Your task to perform on an android device: open app "Paramount+ | Peak Streaming" (install if not already installed) and enter user name: "fostered@yahoo.com" and password: "strong" Image 0: 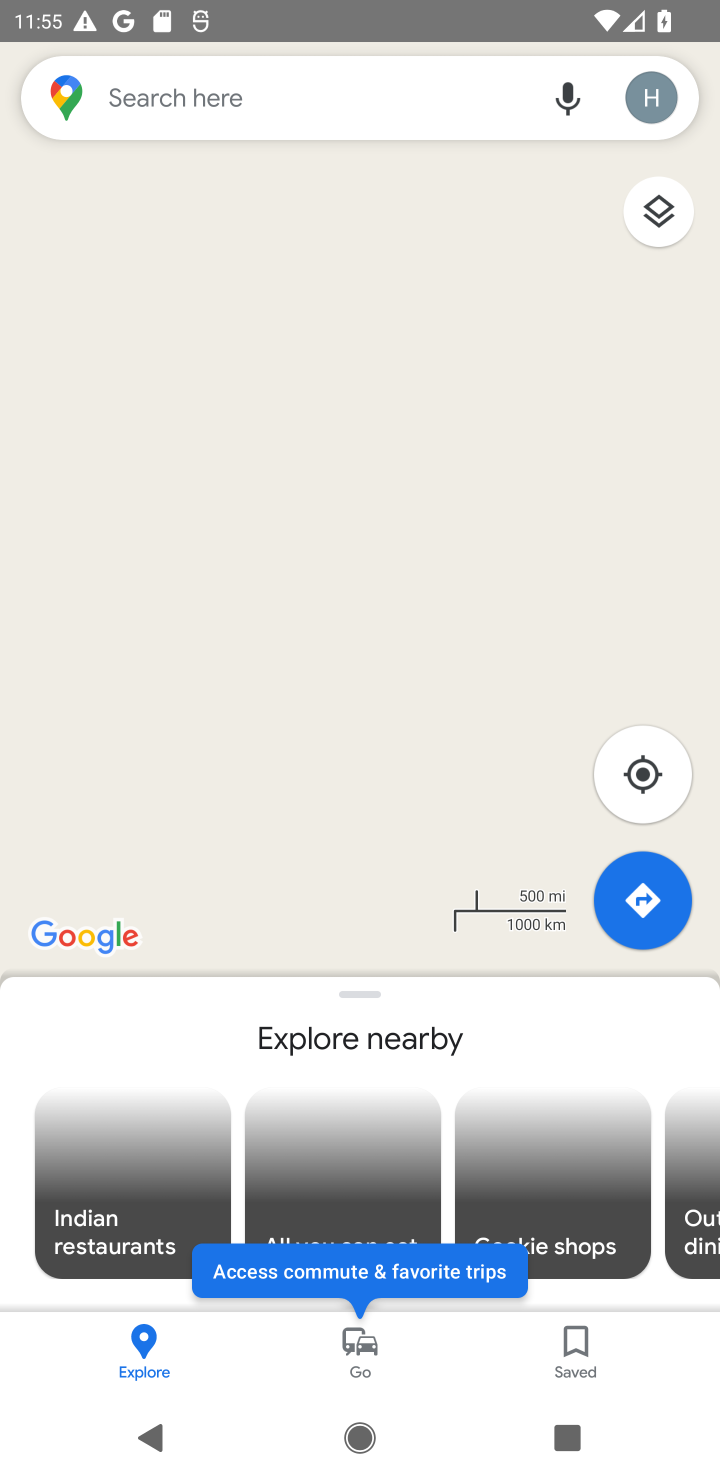
Step 0: press home button
Your task to perform on an android device: open app "Paramount+ | Peak Streaming" (install if not already installed) and enter user name: "fostered@yahoo.com" and password: "strong" Image 1: 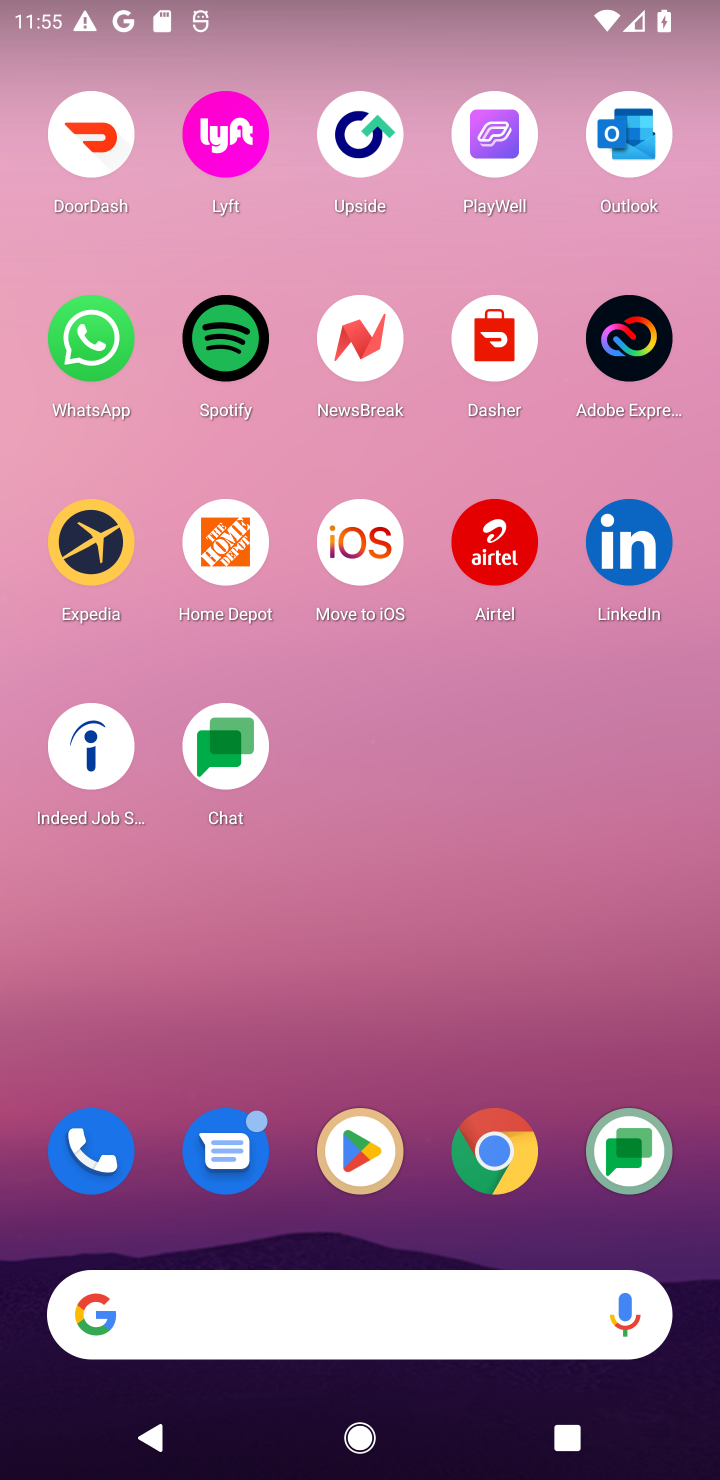
Step 1: click (338, 1144)
Your task to perform on an android device: open app "Paramount+ | Peak Streaming" (install if not already installed) and enter user name: "fostered@yahoo.com" and password: "strong" Image 2: 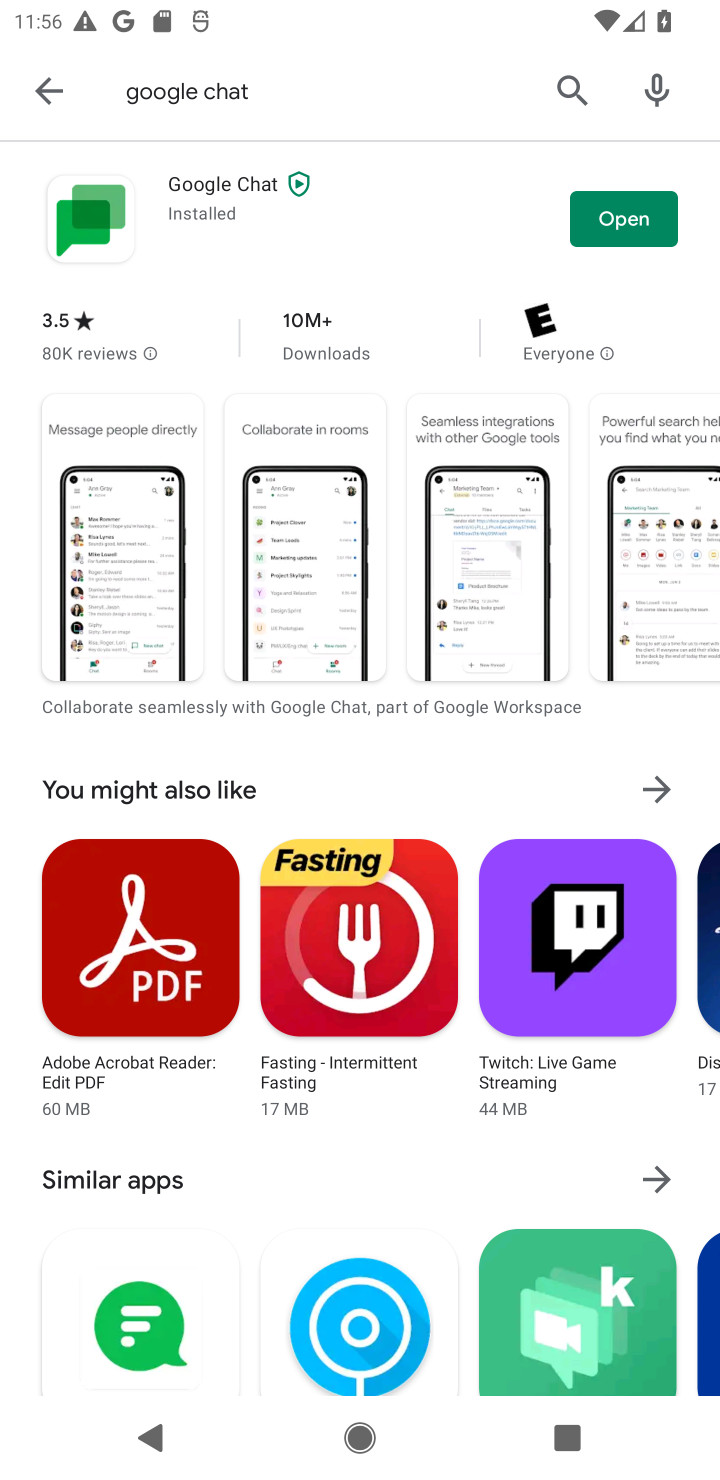
Step 2: click (560, 73)
Your task to perform on an android device: open app "Paramount+ | Peak Streaming" (install if not already installed) and enter user name: "fostered@yahoo.com" and password: "strong" Image 3: 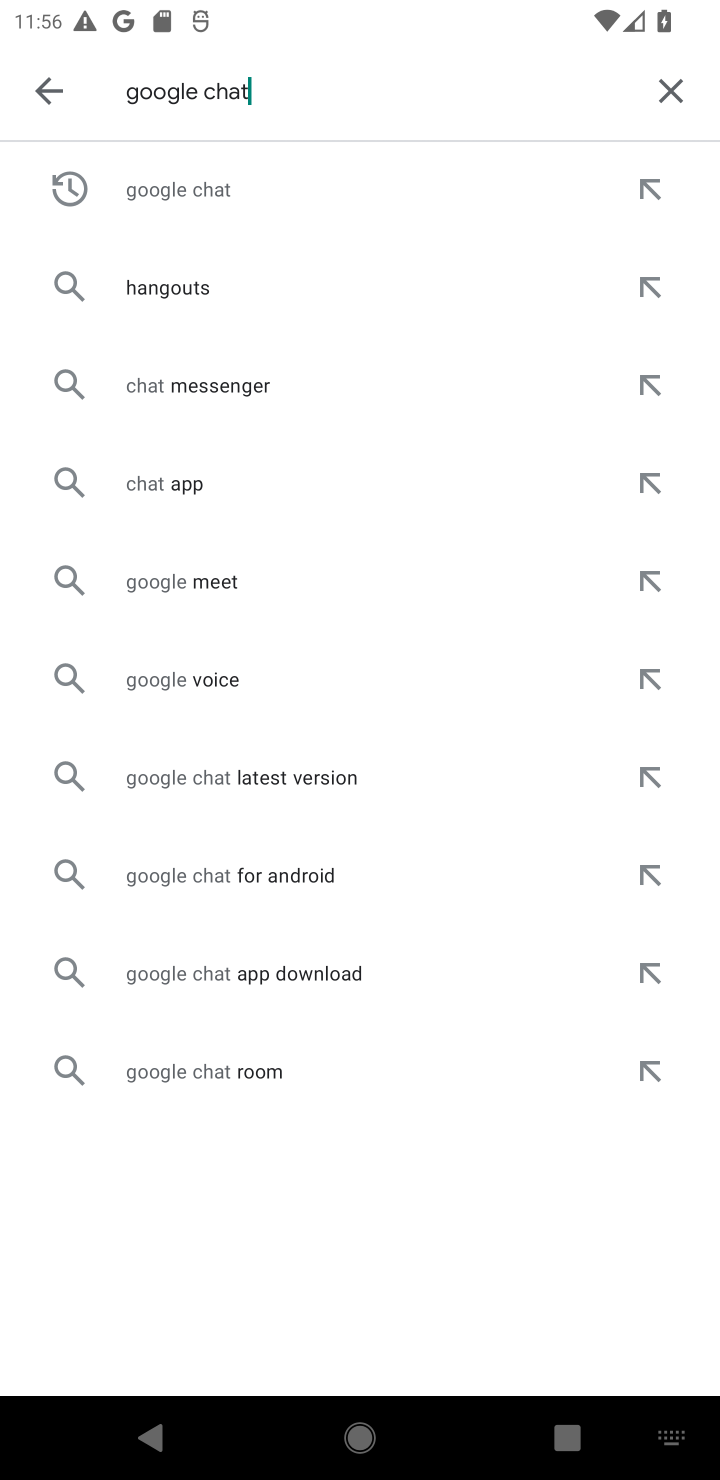
Step 3: click (651, 90)
Your task to perform on an android device: open app "Paramount+ | Peak Streaming" (install if not already installed) and enter user name: "fostered@yahoo.com" and password: "strong" Image 4: 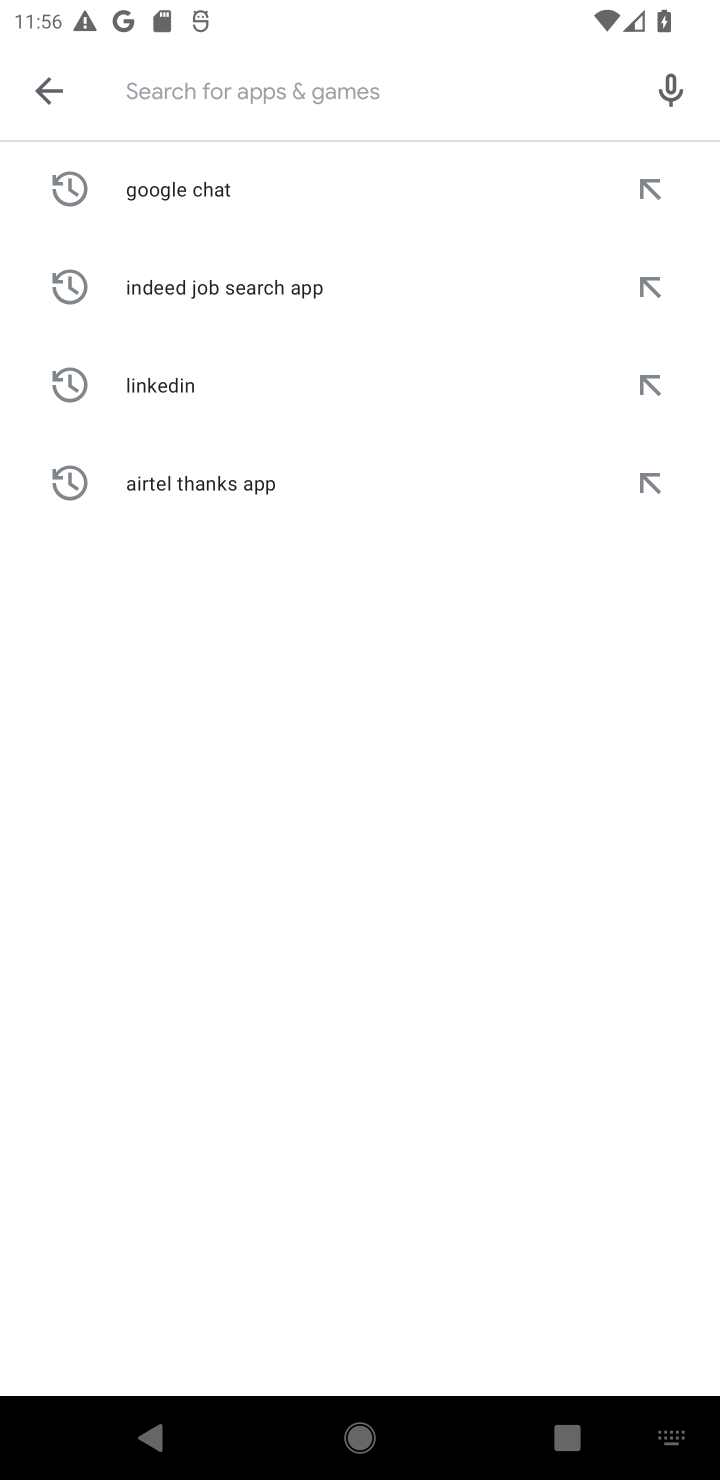
Step 4: type "Paramount+ | Peak Streaming"
Your task to perform on an android device: open app "Paramount+ | Peak Streaming" (install if not already installed) and enter user name: "fostered@yahoo.com" and password: "strong" Image 5: 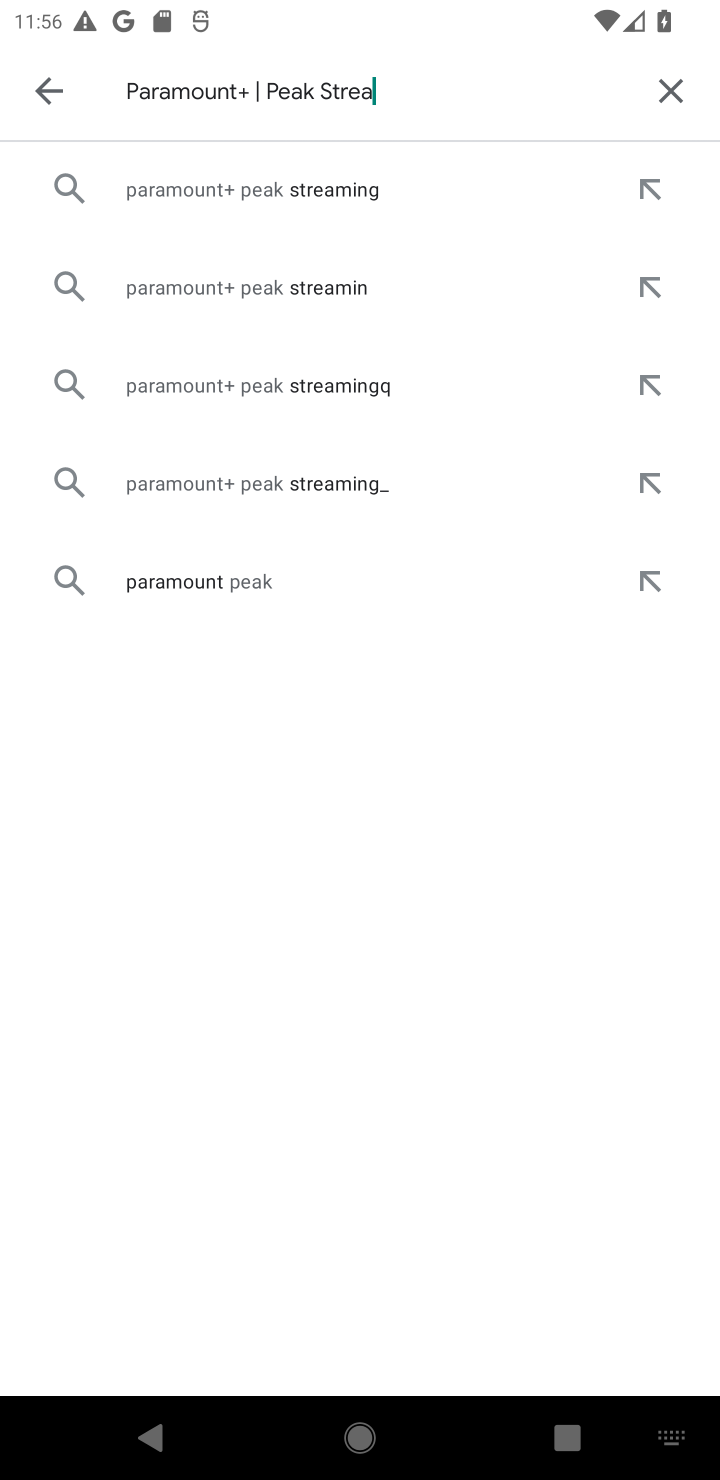
Step 5: type ""
Your task to perform on an android device: open app "Paramount+ | Peak Streaming" (install if not already installed) and enter user name: "fostered@yahoo.com" and password: "strong" Image 6: 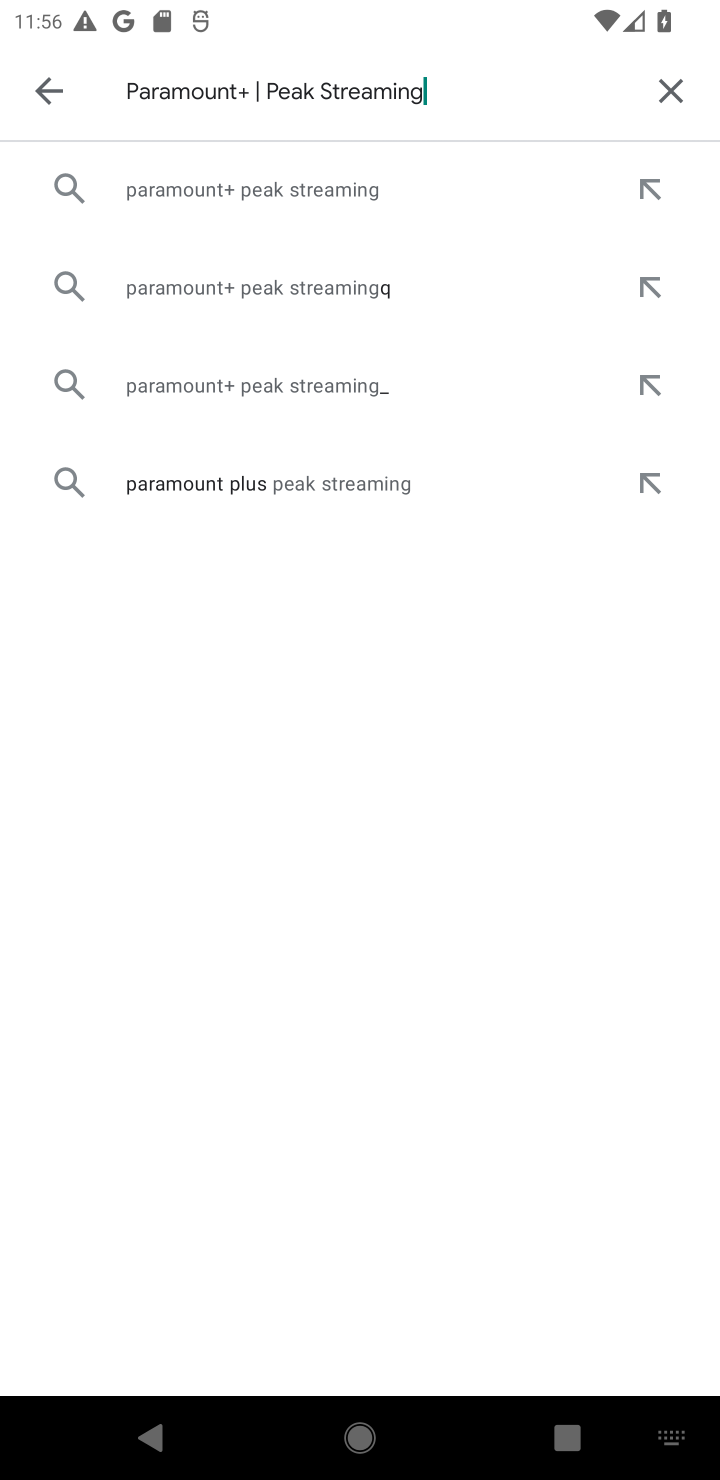
Step 6: click (244, 193)
Your task to perform on an android device: open app "Paramount+ | Peak Streaming" (install if not already installed) and enter user name: "fostered@yahoo.com" and password: "strong" Image 7: 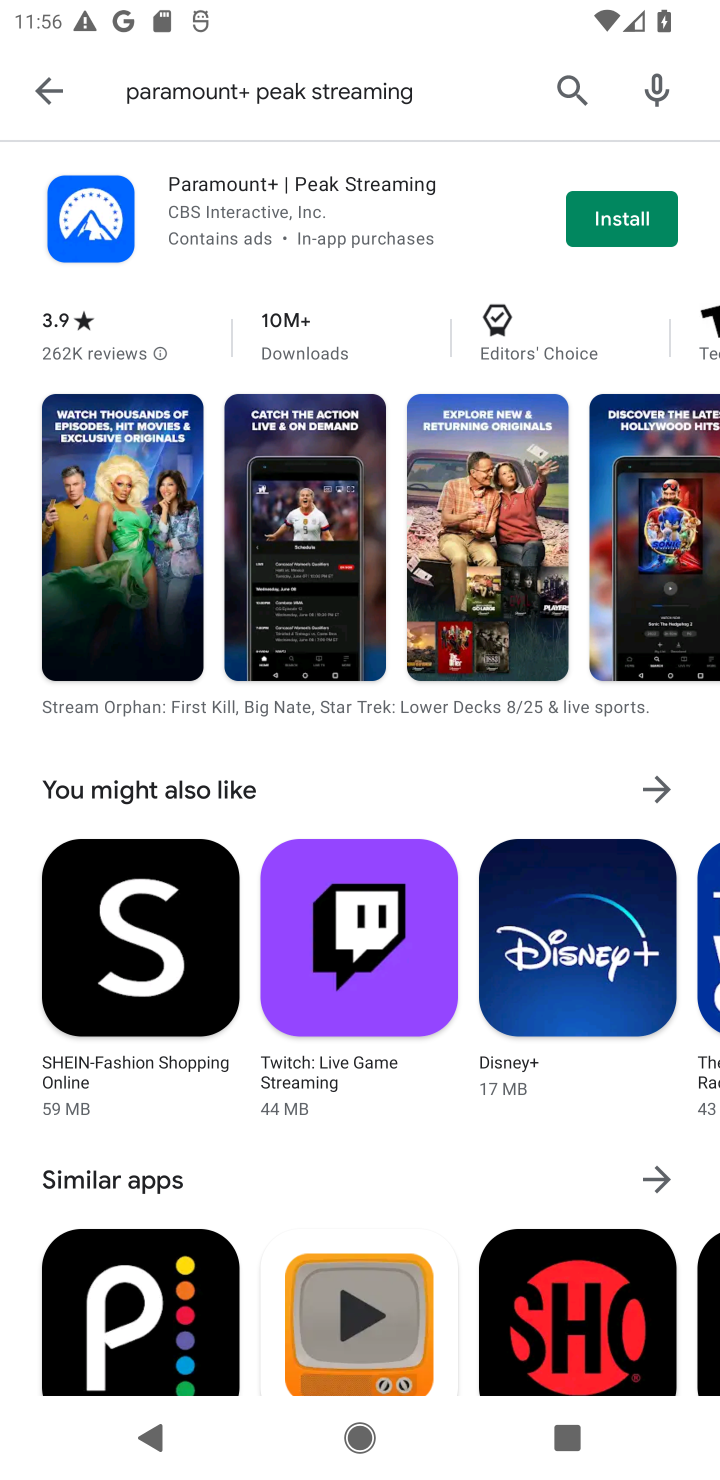
Step 7: click (571, 191)
Your task to perform on an android device: open app "Paramount+ | Peak Streaming" (install if not already installed) and enter user name: "fostered@yahoo.com" and password: "strong" Image 8: 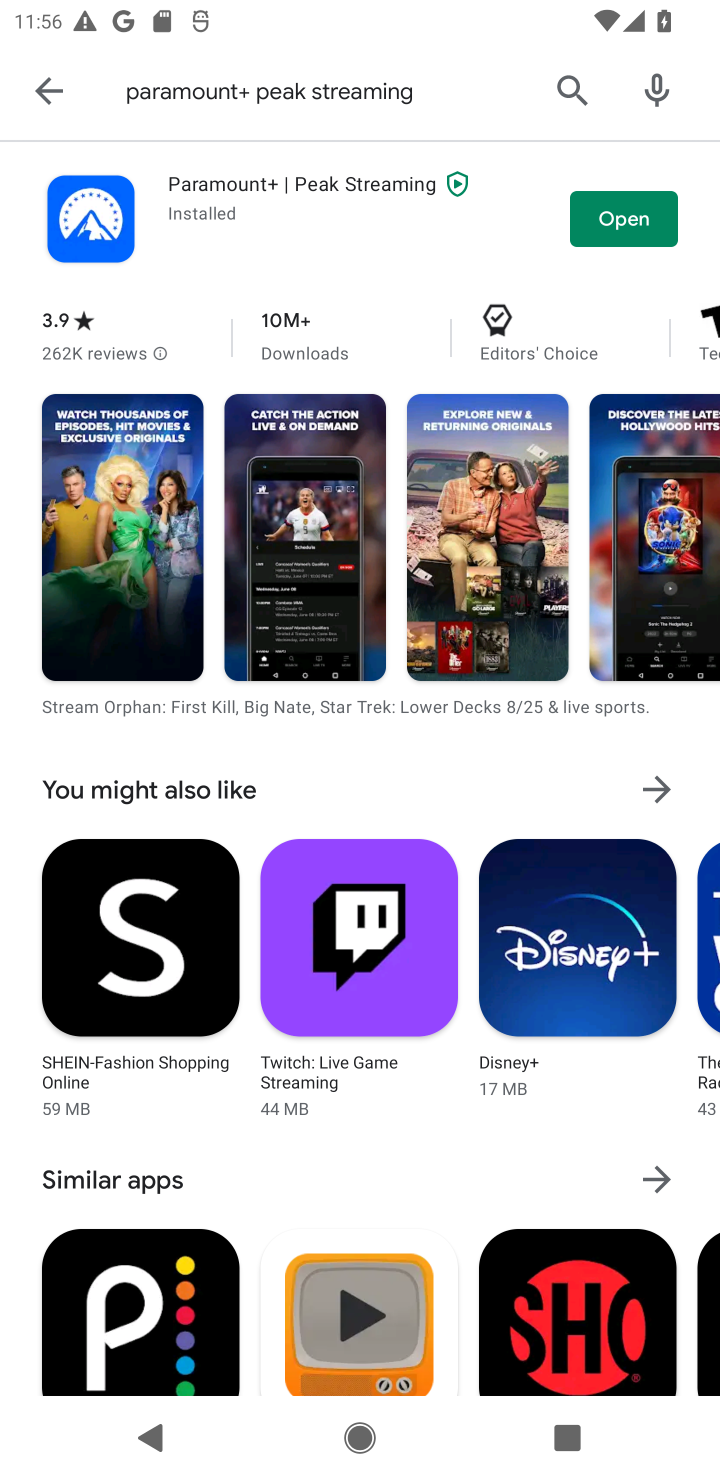
Step 8: click (619, 223)
Your task to perform on an android device: open app "Paramount+ | Peak Streaming" (install if not already installed) and enter user name: "fostered@yahoo.com" and password: "strong" Image 9: 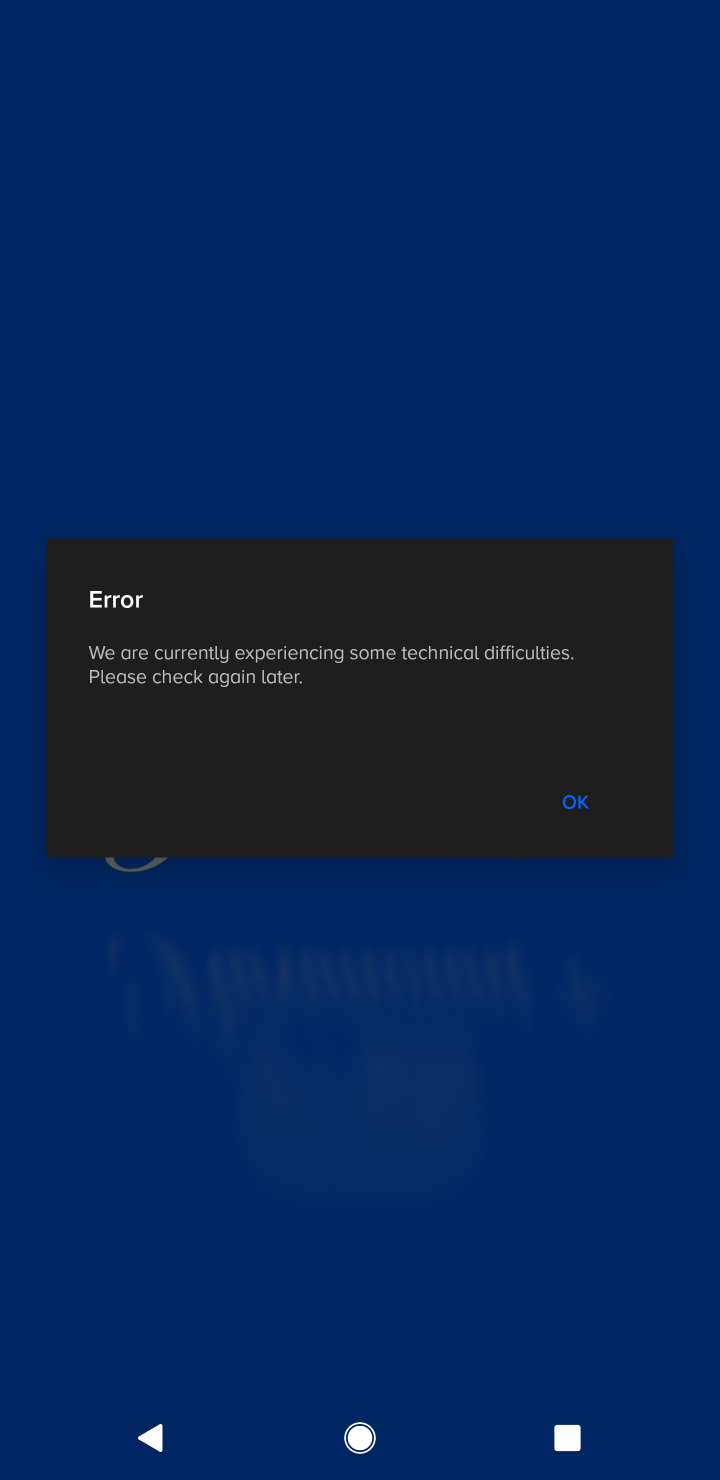
Step 9: press home button
Your task to perform on an android device: open app "Paramount+ | Peak Streaming" (install if not already installed) and enter user name: "fostered@yahoo.com" and password: "strong" Image 10: 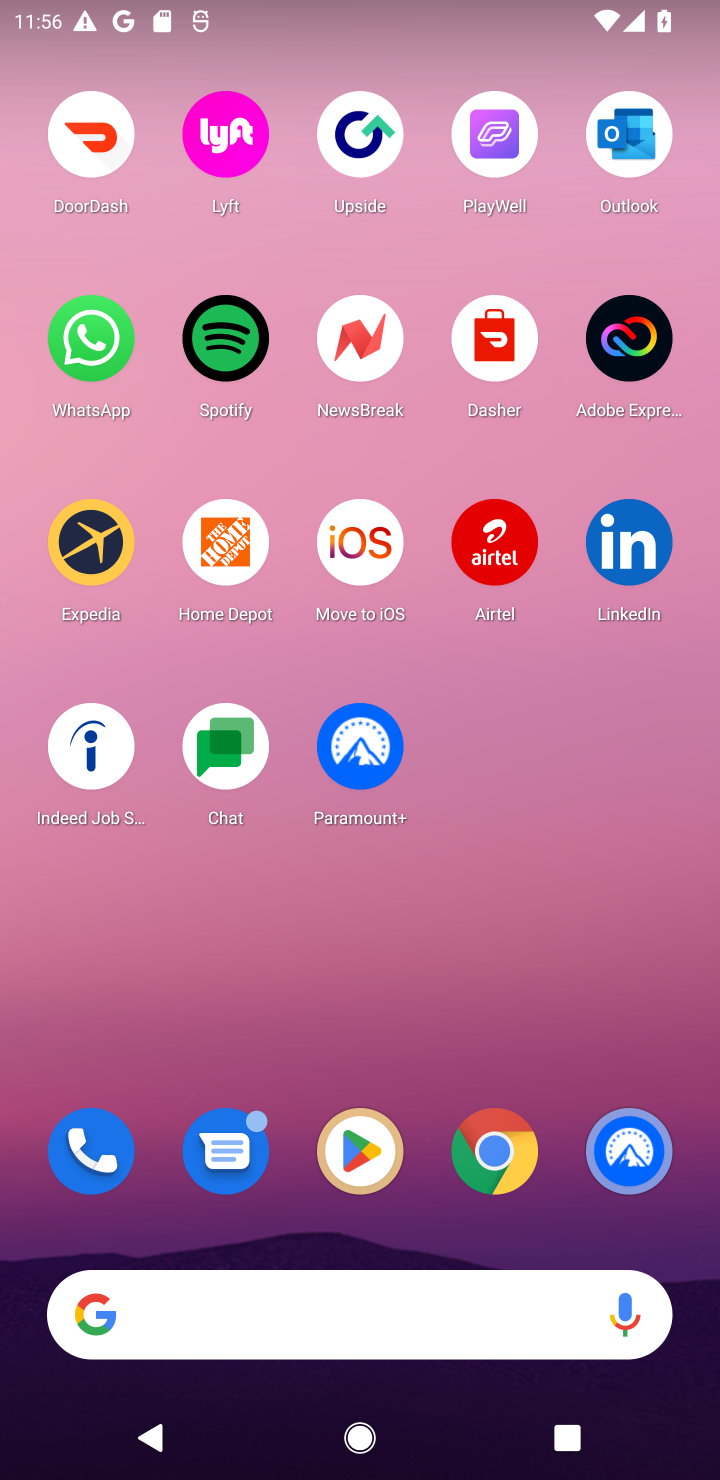
Step 10: click (368, 1163)
Your task to perform on an android device: open app "Paramount+ | Peak Streaming" (install if not already installed) and enter user name: "fostered@yahoo.com" and password: "strong" Image 11: 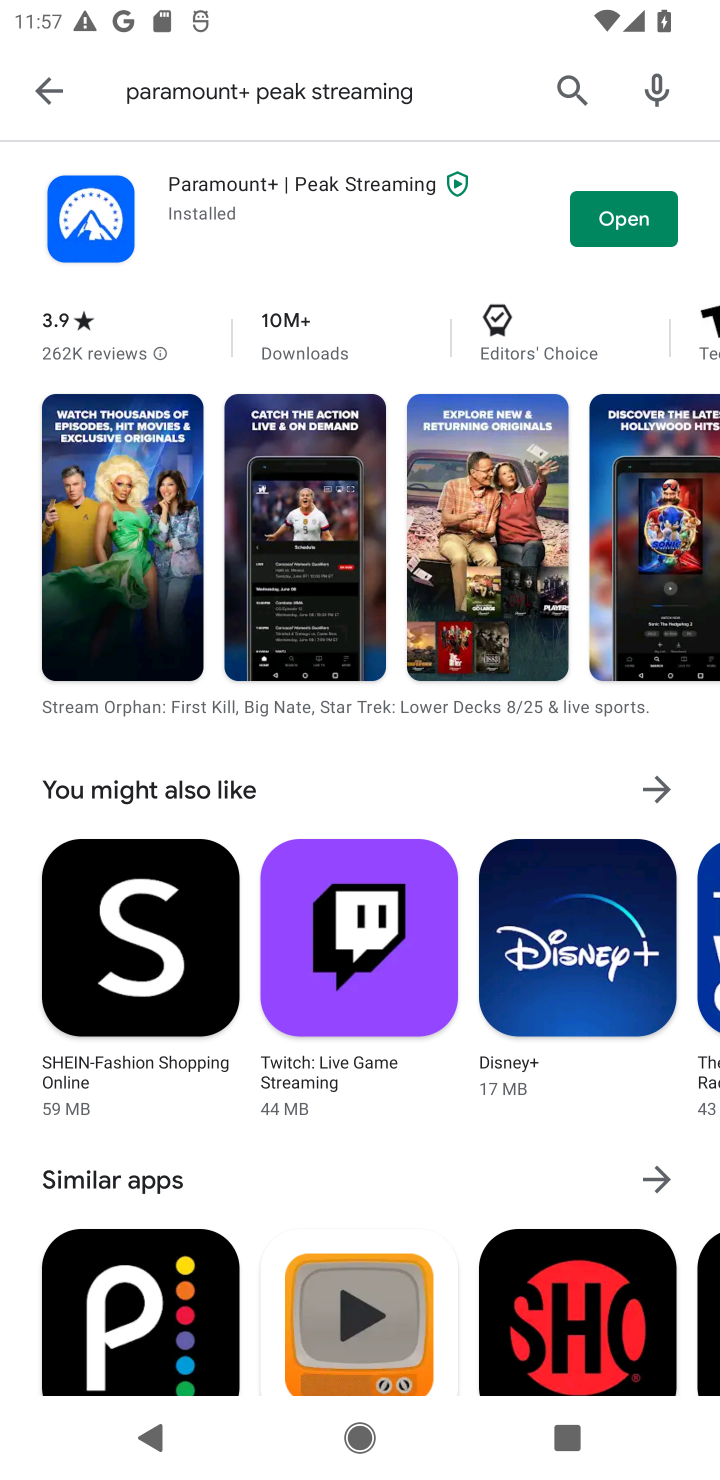
Step 11: click (618, 231)
Your task to perform on an android device: open app "Paramount+ | Peak Streaming" (install if not already installed) and enter user name: "fostered@yahoo.com" and password: "strong" Image 12: 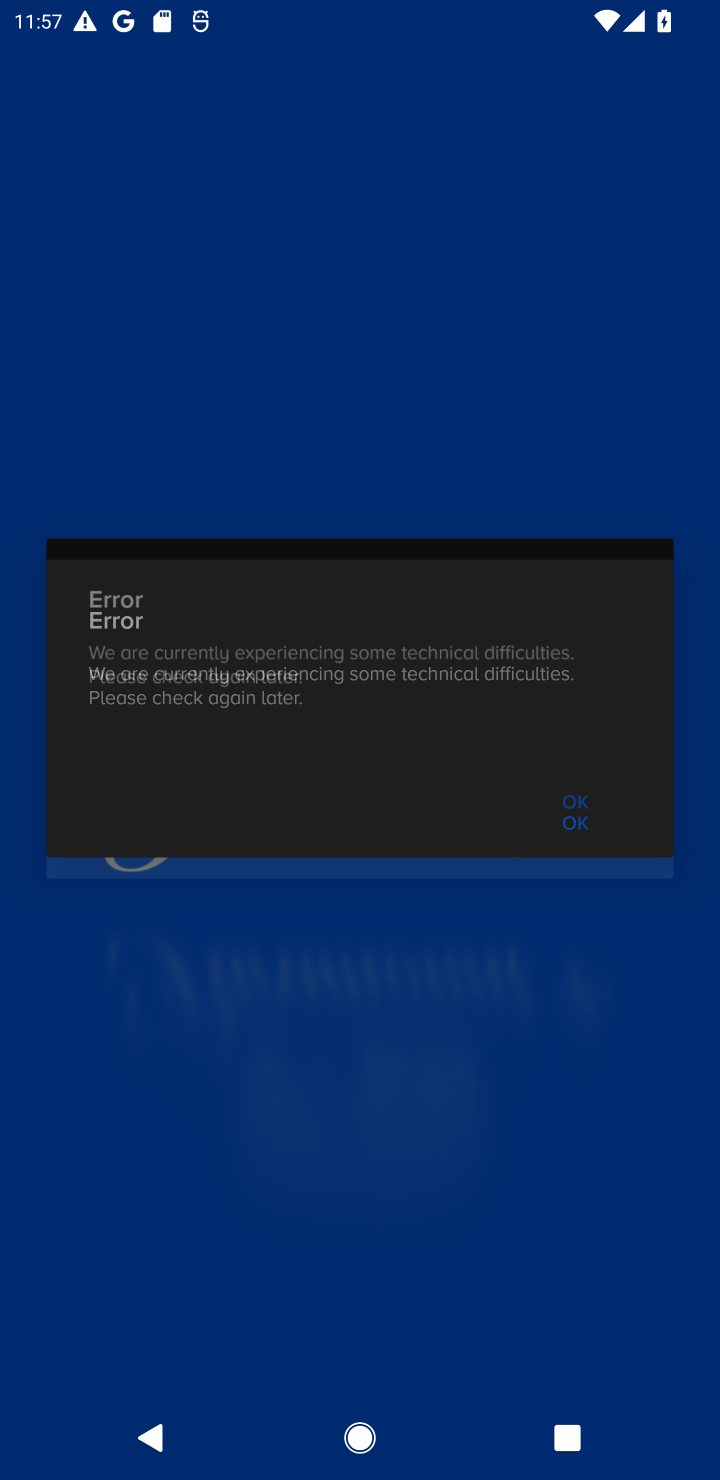
Step 12: task complete